Your task to perform on an android device: open a bookmark in the chrome app Image 0: 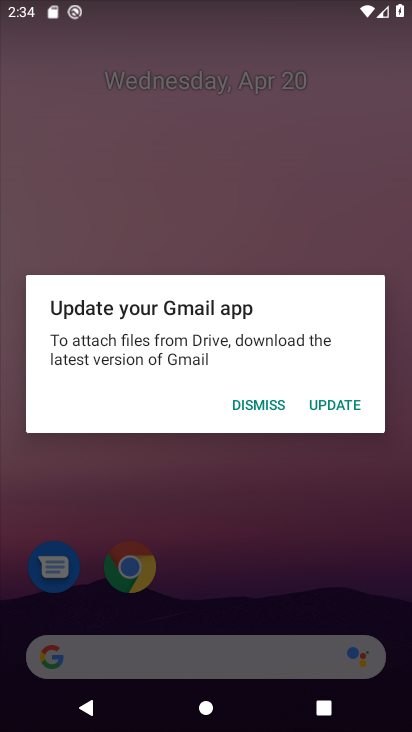
Step 0: click (258, 404)
Your task to perform on an android device: open a bookmark in the chrome app Image 1: 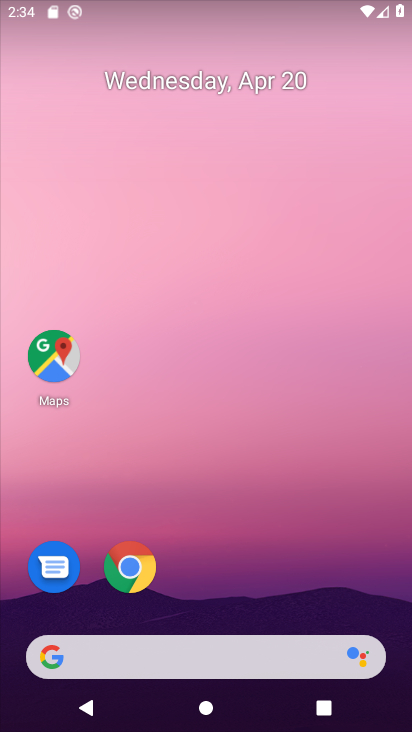
Step 1: click (142, 570)
Your task to perform on an android device: open a bookmark in the chrome app Image 2: 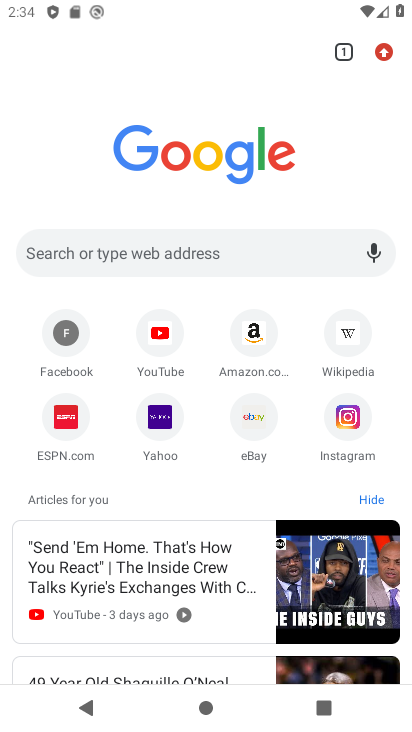
Step 2: click (355, 427)
Your task to perform on an android device: open a bookmark in the chrome app Image 3: 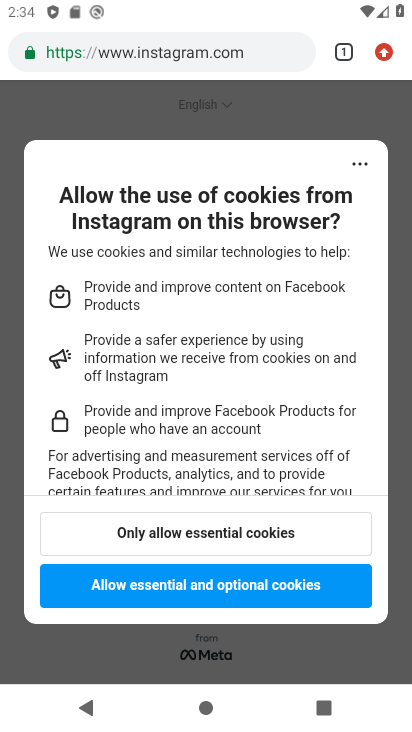
Step 3: task complete